Your task to perform on an android device: Show me recent news Image 0: 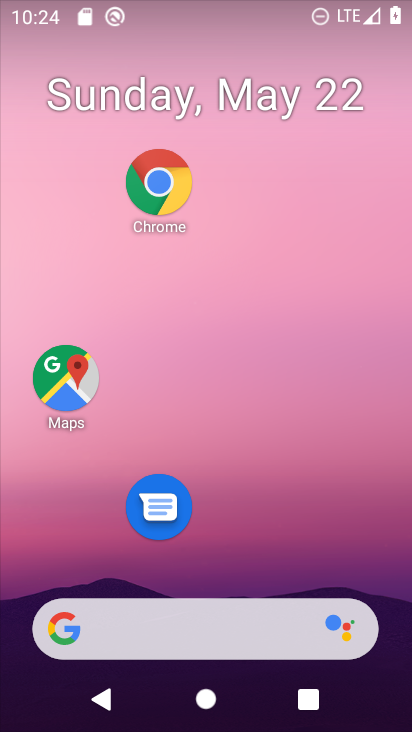
Step 0: click (238, 619)
Your task to perform on an android device: Show me recent news Image 1: 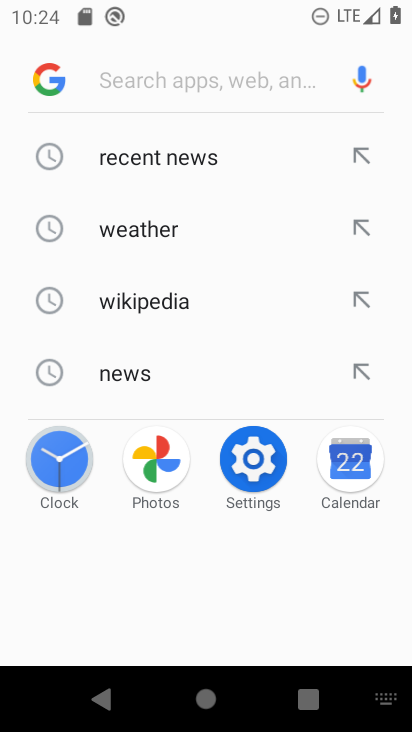
Step 1: click (230, 144)
Your task to perform on an android device: Show me recent news Image 2: 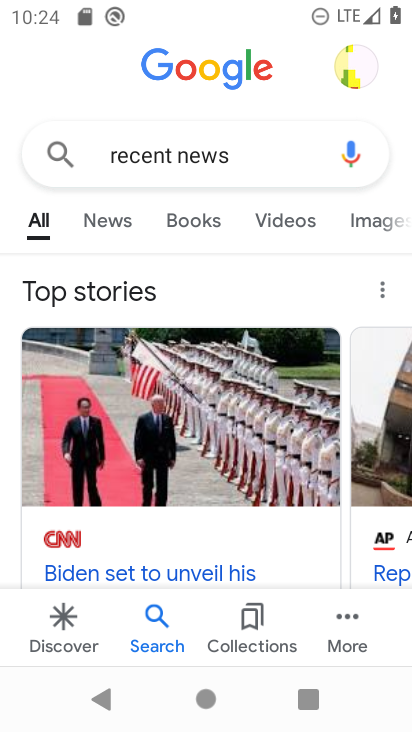
Step 2: task complete